Your task to perform on an android device: delete browsing data in the chrome app Image 0: 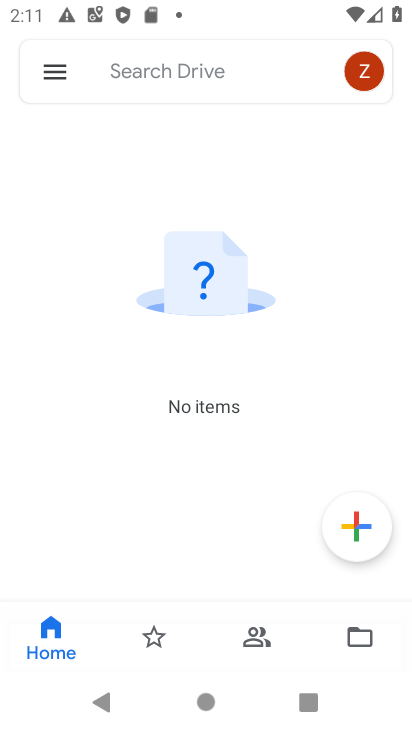
Step 0: press home button
Your task to perform on an android device: delete browsing data in the chrome app Image 1: 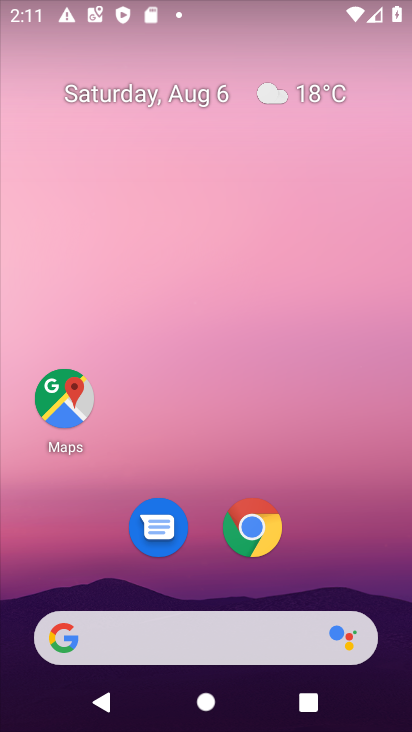
Step 1: drag from (209, 560) to (172, 144)
Your task to perform on an android device: delete browsing data in the chrome app Image 2: 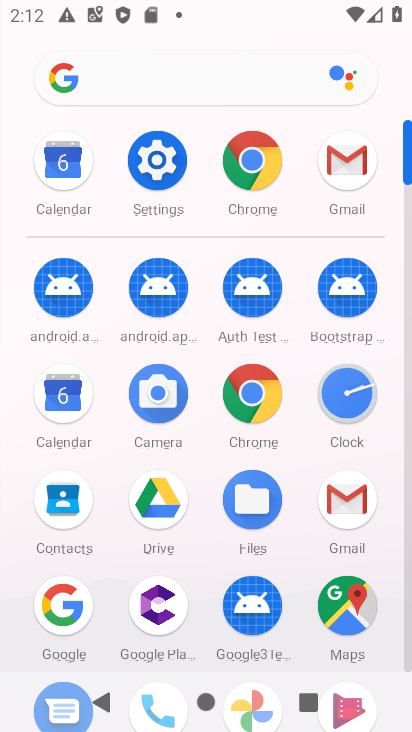
Step 2: click (247, 428)
Your task to perform on an android device: delete browsing data in the chrome app Image 3: 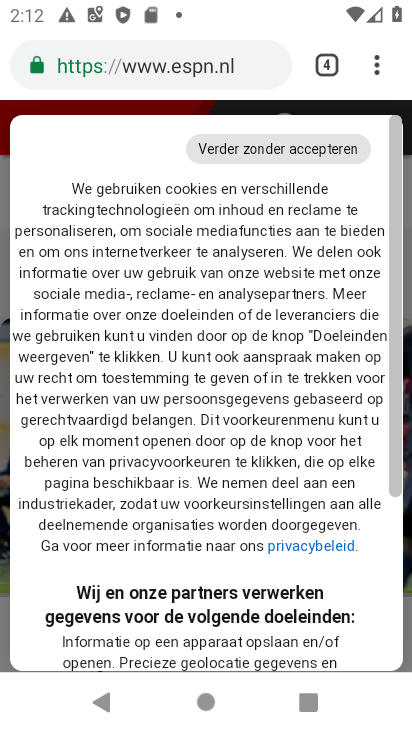
Step 3: click (377, 68)
Your task to perform on an android device: delete browsing data in the chrome app Image 4: 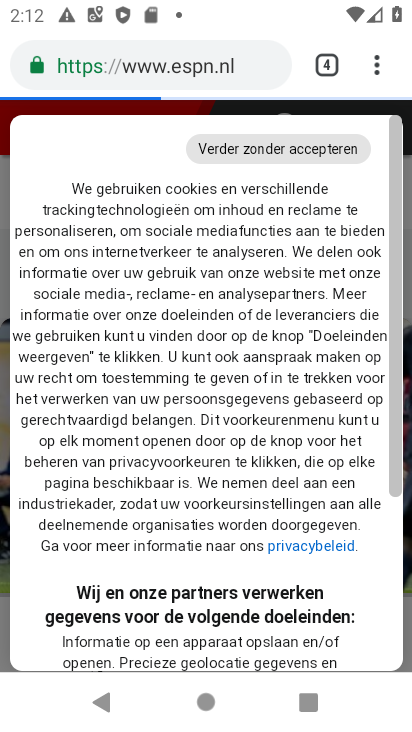
Step 4: click (378, 68)
Your task to perform on an android device: delete browsing data in the chrome app Image 5: 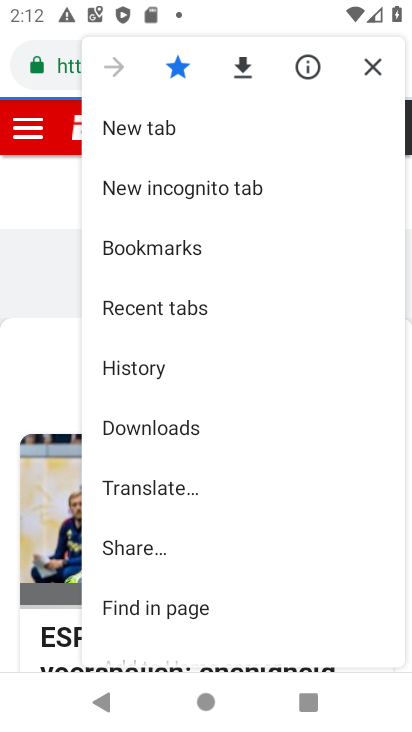
Step 5: click (225, 368)
Your task to perform on an android device: delete browsing data in the chrome app Image 6: 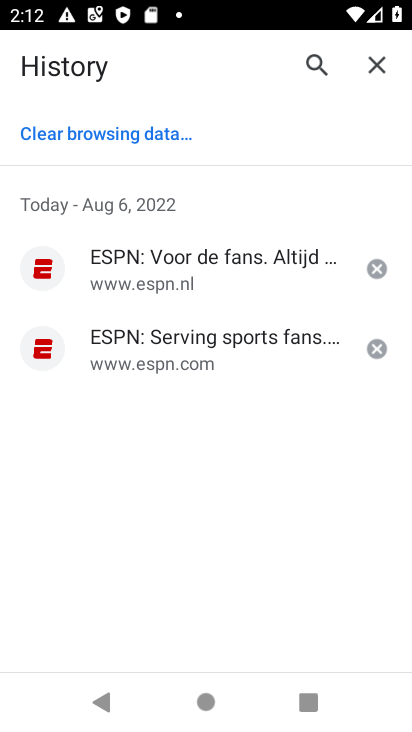
Step 6: click (177, 130)
Your task to perform on an android device: delete browsing data in the chrome app Image 7: 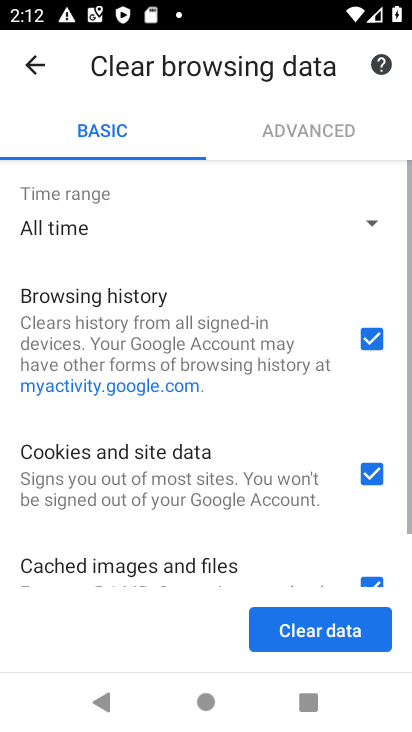
Step 7: click (291, 631)
Your task to perform on an android device: delete browsing data in the chrome app Image 8: 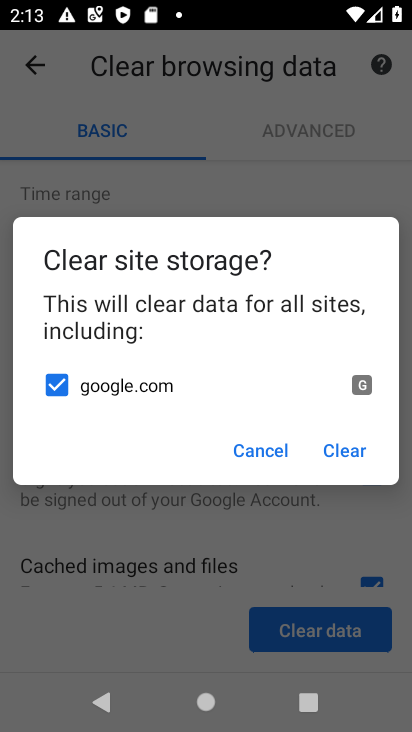
Step 8: click (355, 447)
Your task to perform on an android device: delete browsing data in the chrome app Image 9: 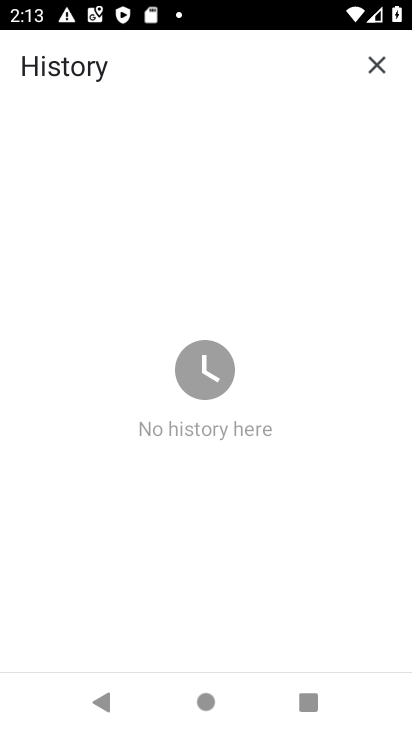
Step 9: task complete